Your task to perform on an android device: Open settings Image 0: 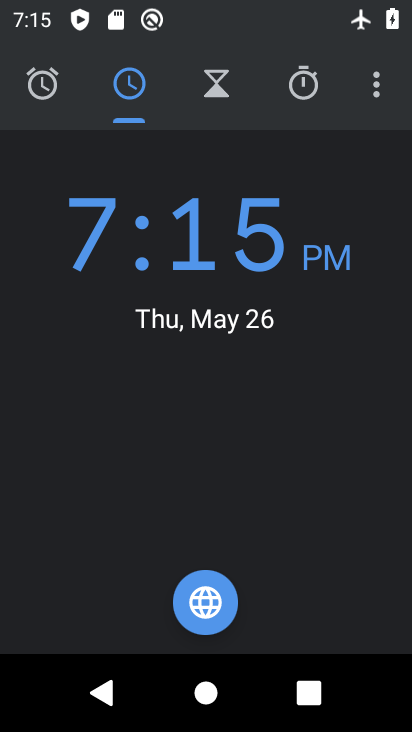
Step 0: press home button
Your task to perform on an android device: Open settings Image 1: 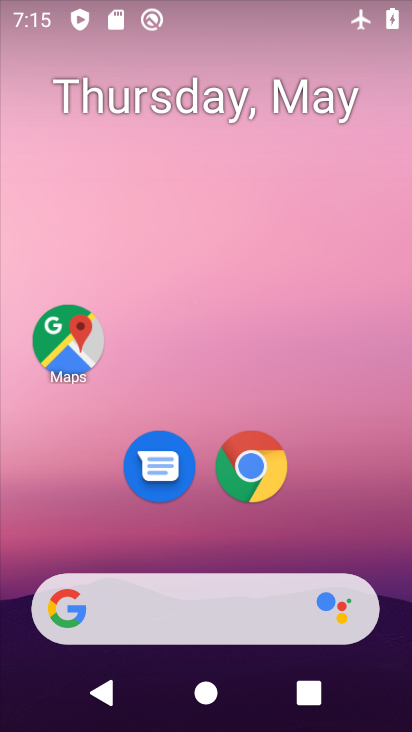
Step 1: drag from (334, 507) to (168, 21)
Your task to perform on an android device: Open settings Image 2: 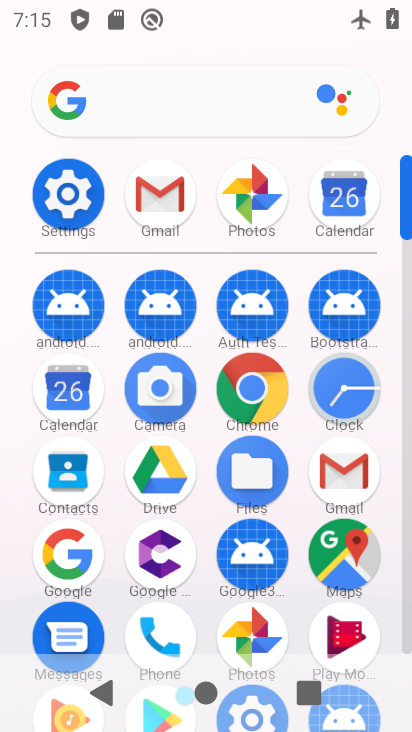
Step 2: click (70, 193)
Your task to perform on an android device: Open settings Image 3: 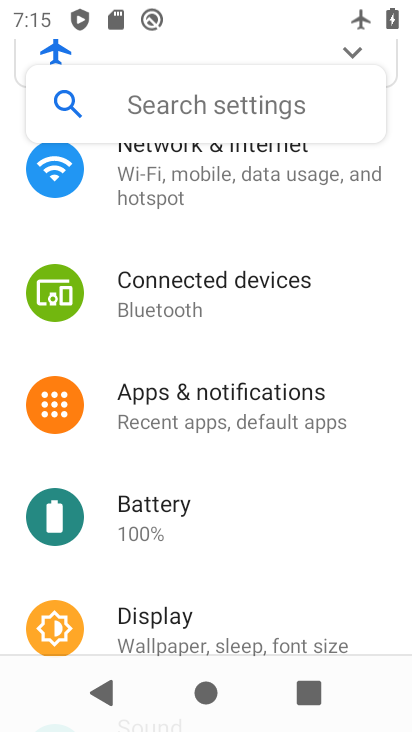
Step 3: task complete